Your task to perform on an android device: Go to Wikipedia Image 0: 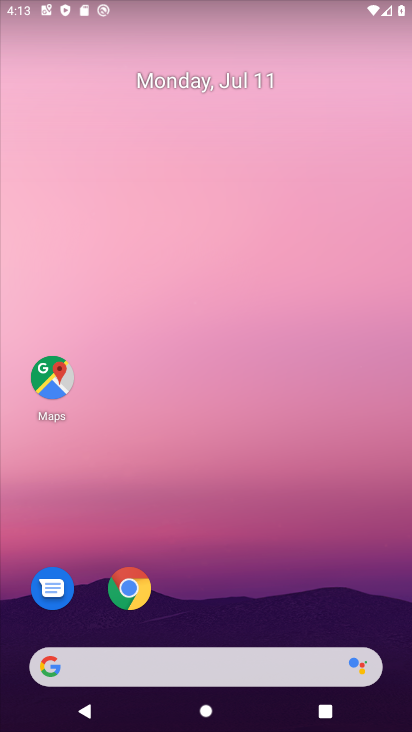
Step 0: drag from (346, 620) to (363, 86)
Your task to perform on an android device: Go to Wikipedia Image 1: 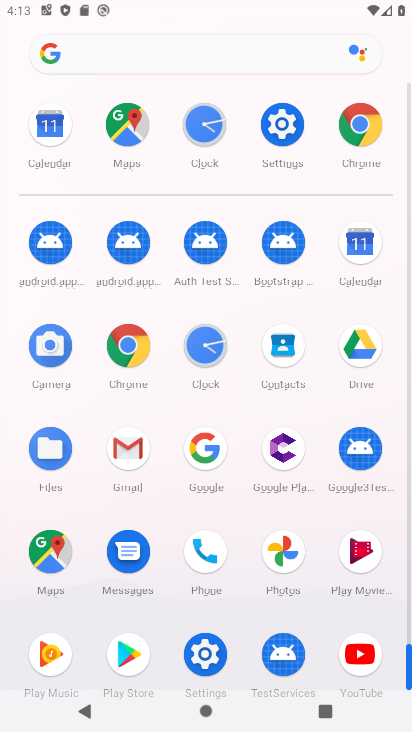
Step 1: click (126, 354)
Your task to perform on an android device: Go to Wikipedia Image 2: 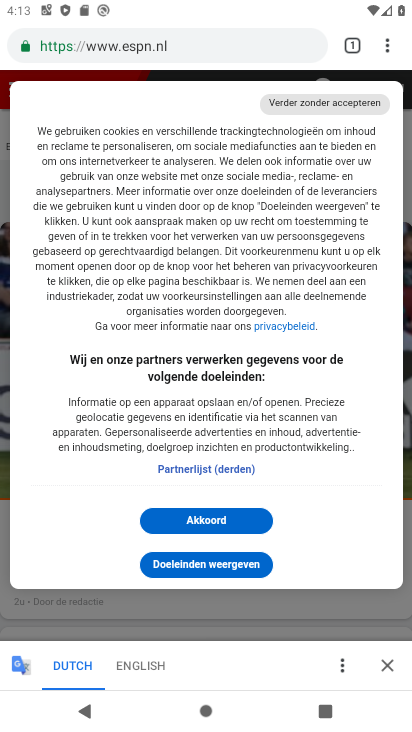
Step 2: click (209, 41)
Your task to perform on an android device: Go to Wikipedia Image 3: 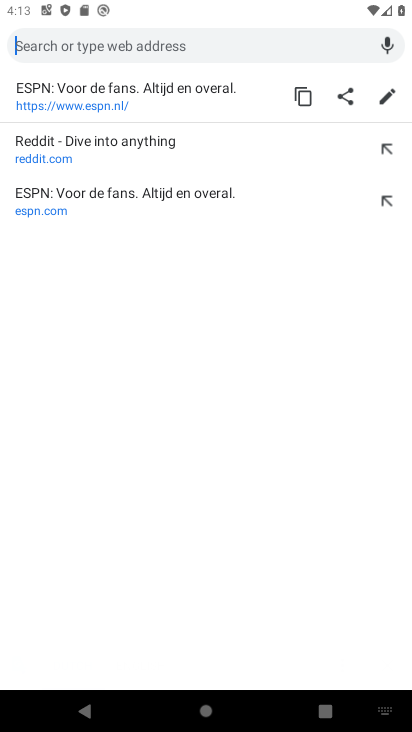
Step 3: type "wikipedia"
Your task to perform on an android device: Go to Wikipedia Image 4: 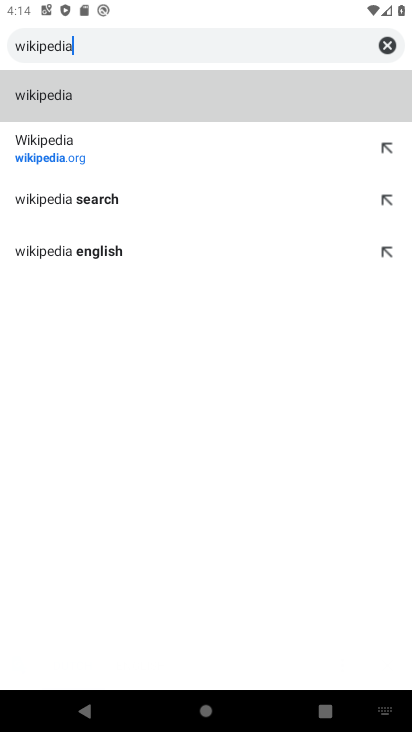
Step 4: click (209, 86)
Your task to perform on an android device: Go to Wikipedia Image 5: 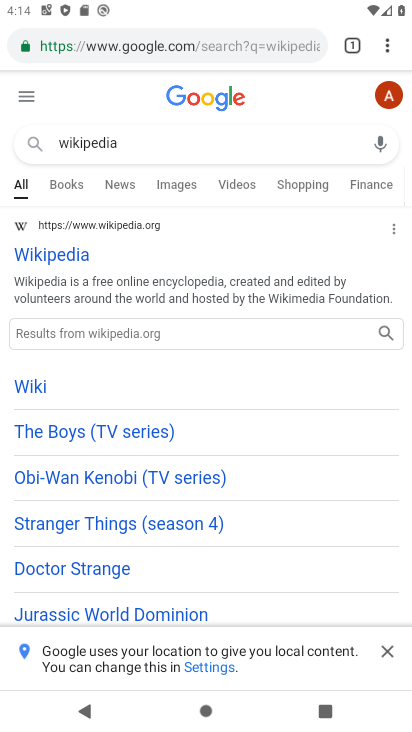
Step 5: task complete